Your task to perform on an android device: Go to eBay Image 0: 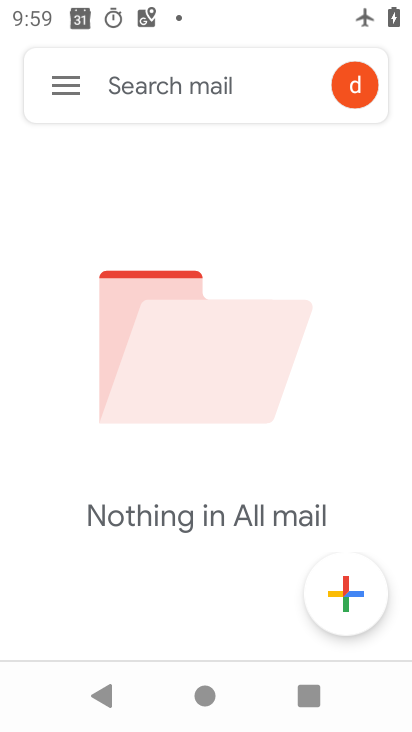
Step 0: press home button
Your task to perform on an android device: Go to eBay Image 1: 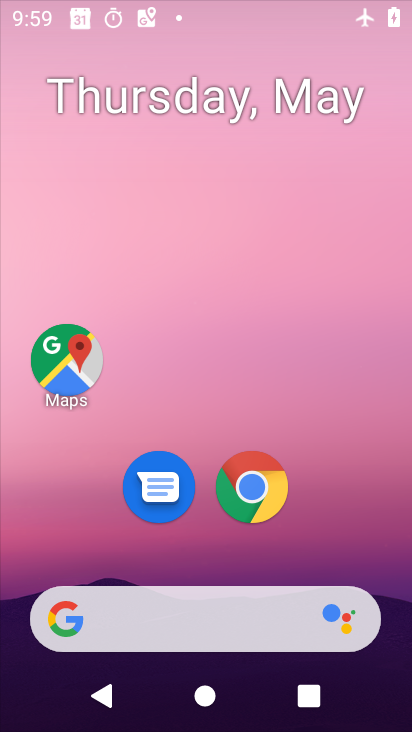
Step 1: drag from (223, 604) to (224, 173)
Your task to perform on an android device: Go to eBay Image 2: 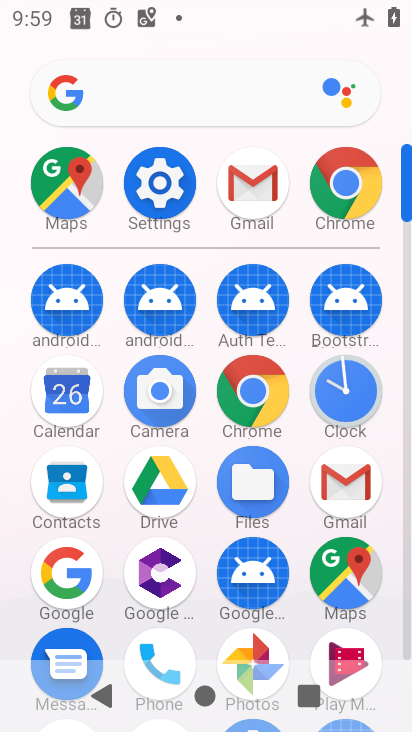
Step 2: click (338, 207)
Your task to perform on an android device: Go to eBay Image 3: 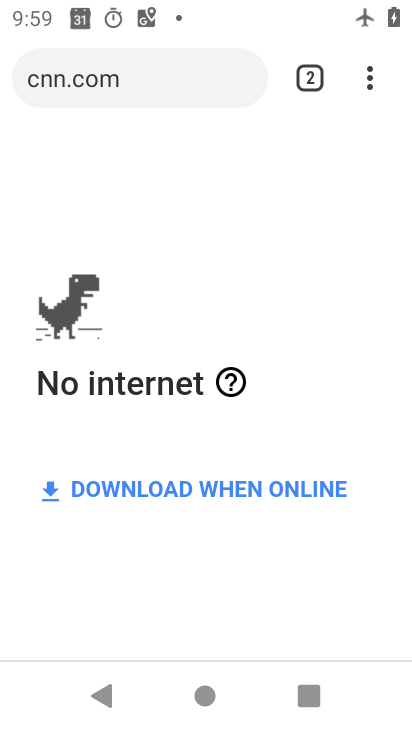
Step 3: click (170, 92)
Your task to perform on an android device: Go to eBay Image 4: 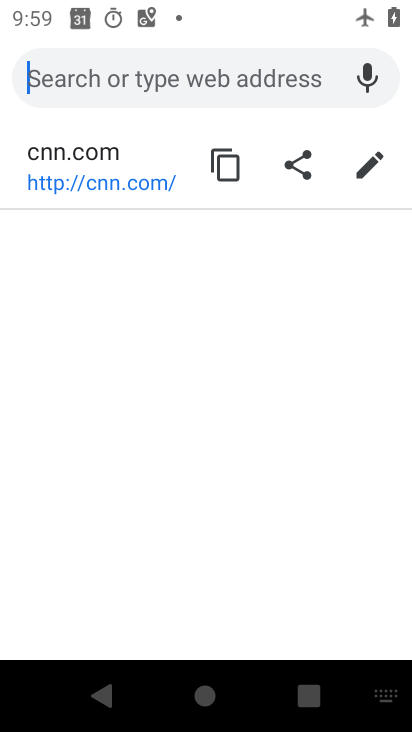
Step 4: type "ebay"
Your task to perform on an android device: Go to eBay Image 5: 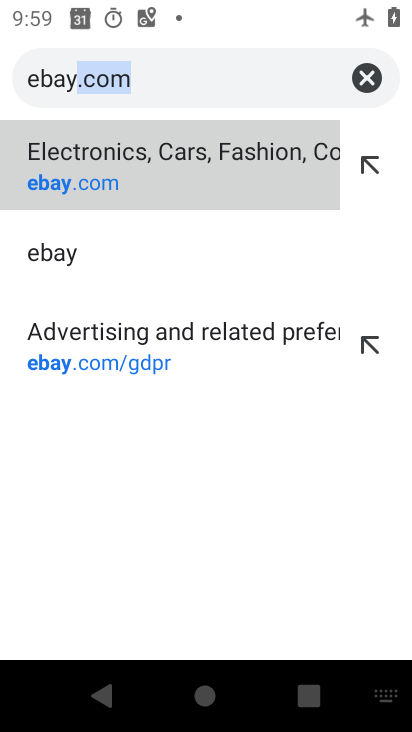
Step 5: click (224, 164)
Your task to perform on an android device: Go to eBay Image 6: 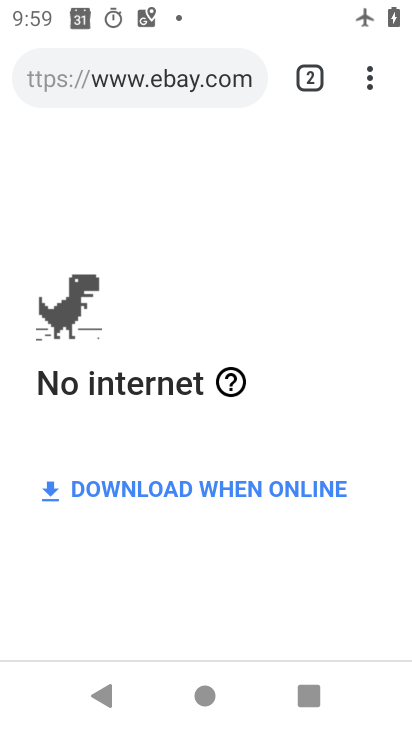
Step 6: task complete